Your task to perform on an android device: Open sound settings Image 0: 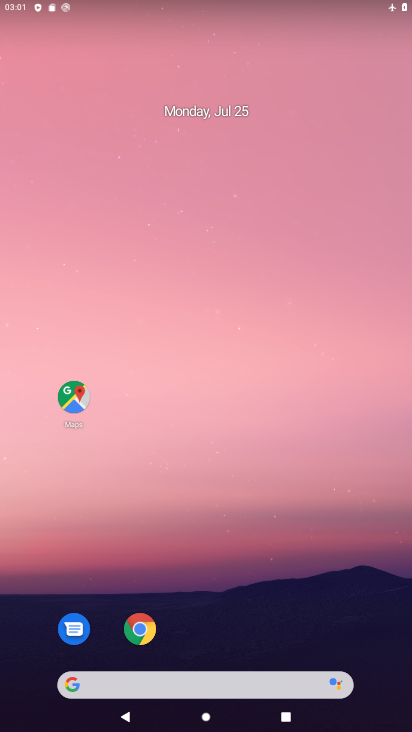
Step 0: drag from (271, 628) to (290, 3)
Your task to perform on an android device: Open sound settings Image 1: 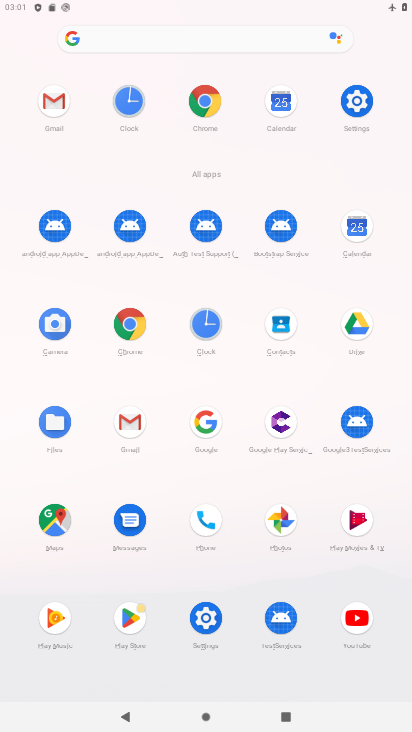
Step 1: click (347, 92)
Your task to perform on an android device: Open sound settings Image 2: 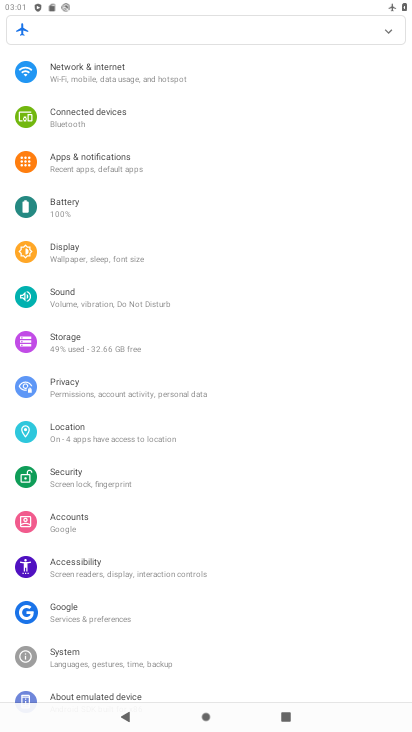
Step 2: click (62, 306)
Your task to perform on an android device: Open sound settings Image 3: 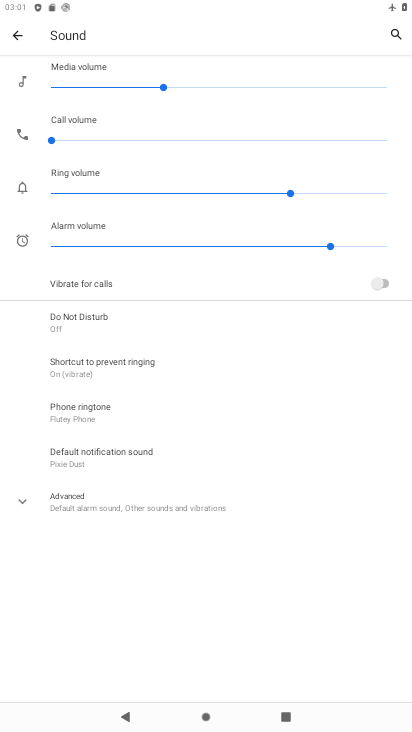
Step 3: task complete